Your task to perform on an android device: open wifi settings Image 0: 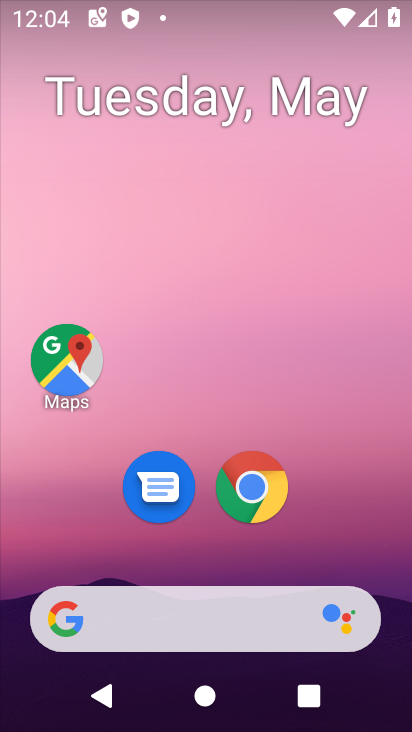
Step 0: drag from (387, 558) to (386, 149)
Your task to perform on an android device: open wifi settings Image 1: 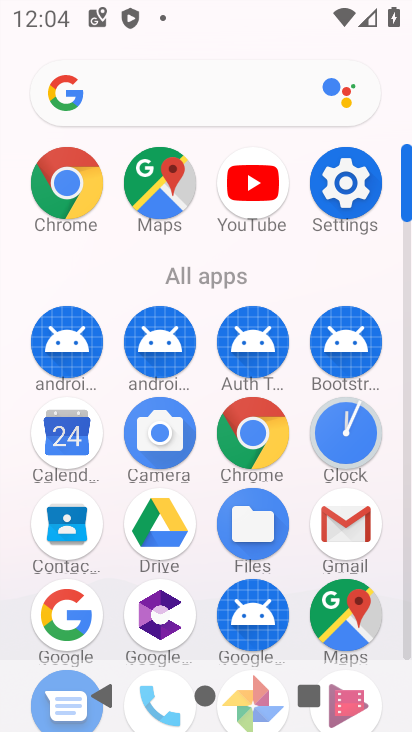
Step 1: click (355, 192)
Your task to perform on an android device: open wifi settings Image 2: 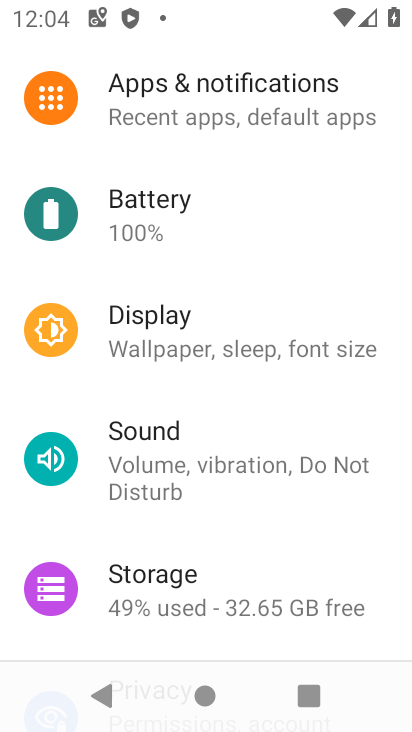
Step 2: drag from (382, 581) to (382, 497)
Your task to perform on an android device: open wifi settings Image 3: 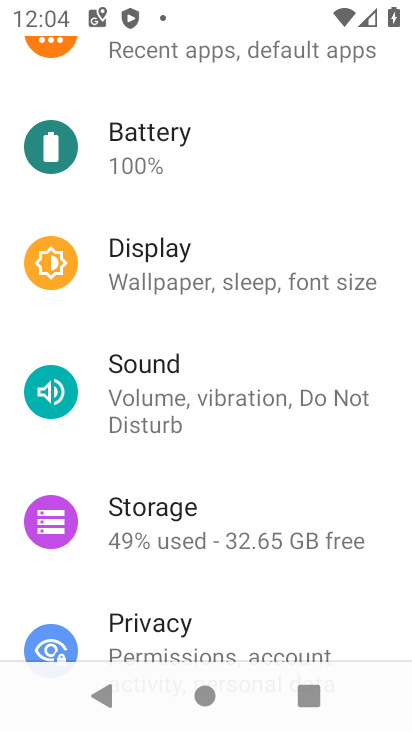
Step 3: drag from (371, 592) to (355, 465)
Your task to perform on an android device: open wifi settings Image 4: 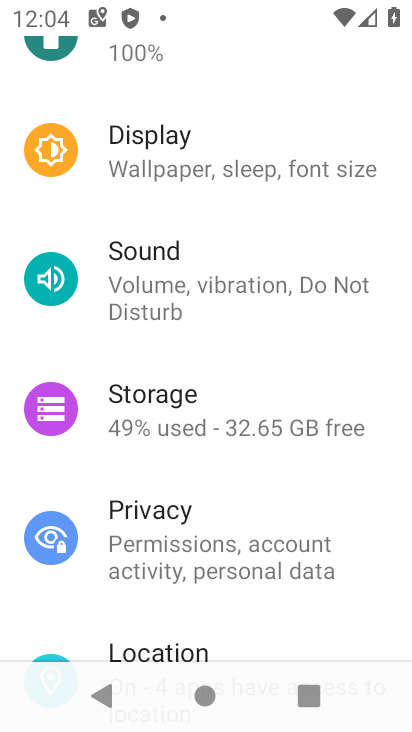
Step 4: drag from (368, 589) to (373, 503)
Your task to perform on an android device: open wifi settings Image 5: 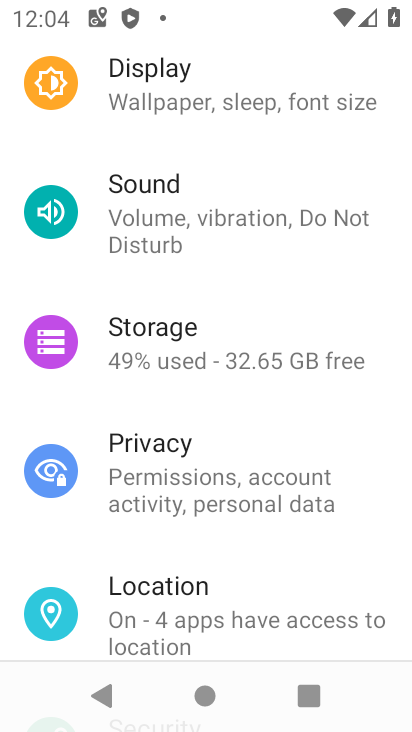
Step 5: drag from (373, 596) to (373, 463)
Your task to perform on an android device: open wifi settings Image 6: 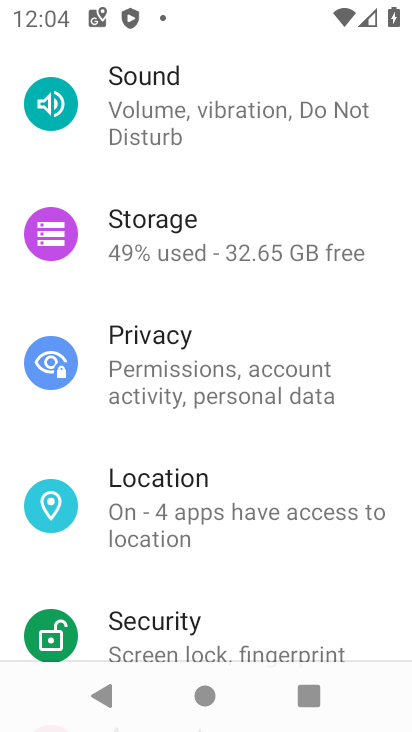
Step 6: drag from (372, 605) to (379, 449)
Your task to perform on an android device: open wifi settings Image 7: 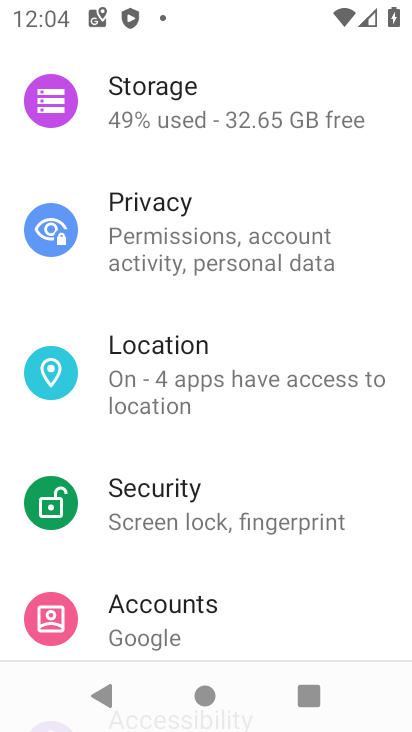
Step 7: drag from (367, 622) to (371, 502)
Your task to perform on an android device: open wifi settings Image 8: 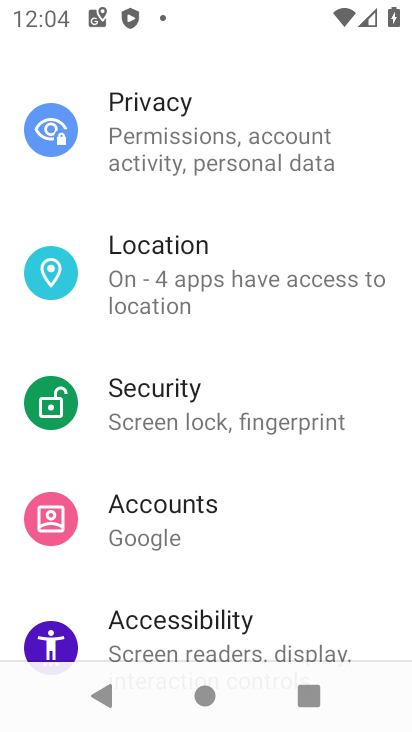
Step 8: drag from (364, 590) to (369, 465)
Your task to perform on an android device: open wifi settings Image 9: 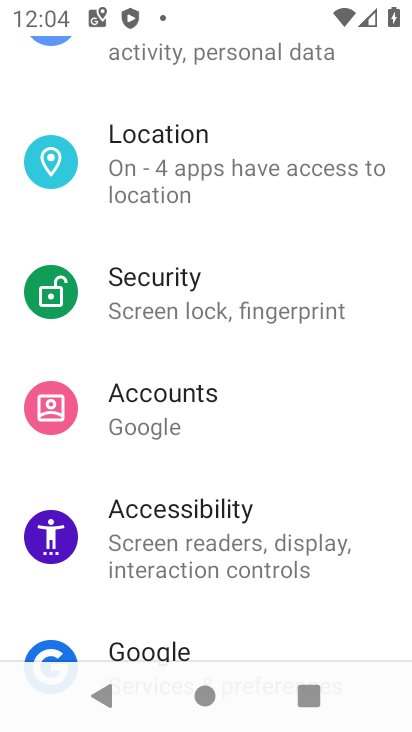
Step 9: drag from (368, 624) to (370, 469)
Your task to perform on an android device: open wifi settings Image 10: 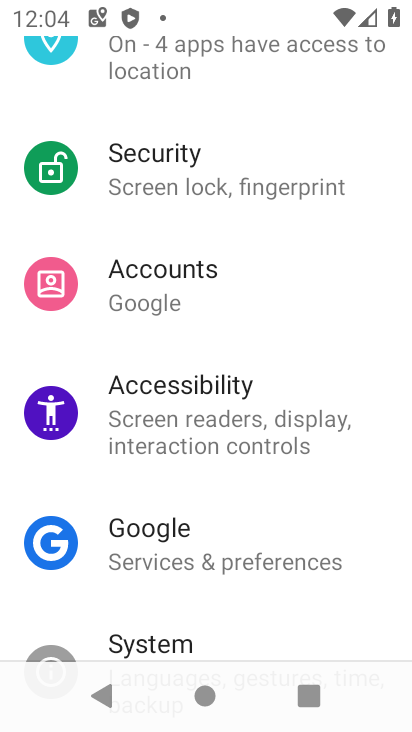
Step 10: drag from (371, 634) to (374, 458)
Your task to perform on an android device: open wifi settings Image 11: 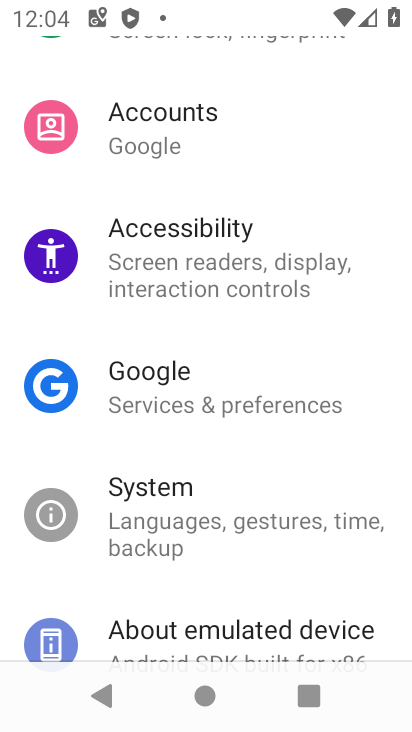
Step 11: drag from (374, 599) to (377, 435)
Your task to perform on an android device: open wifi settings Image 12: 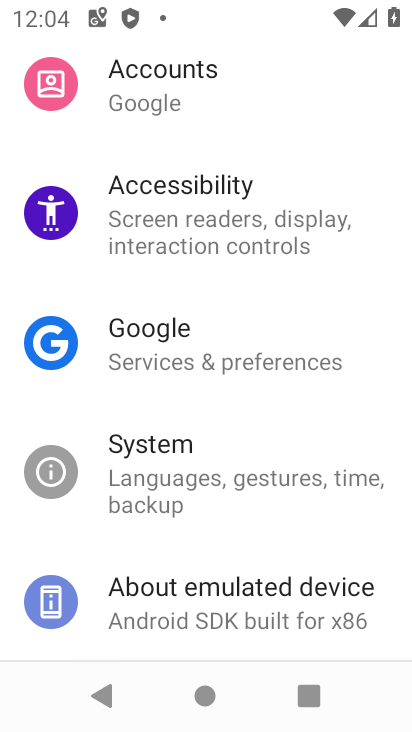
Step 12: drag from (376, 396) to (376, 513)
Your task to perform on an android device: open wifi settings Image 13: 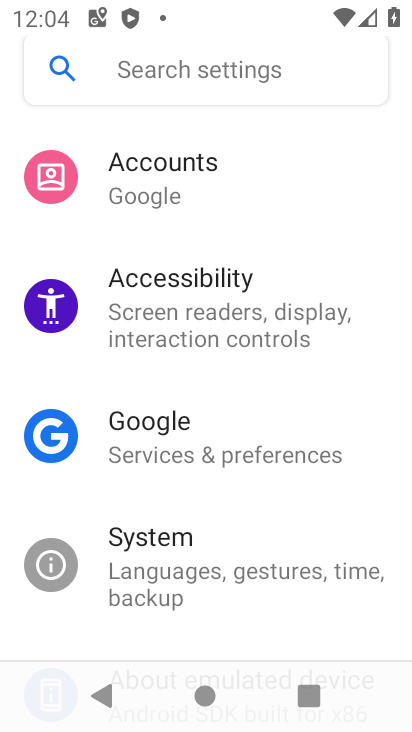
Step 13: drag from (387, 386) to (387, 517)
Your task to perform on an android device: open wifi settings Image 14: 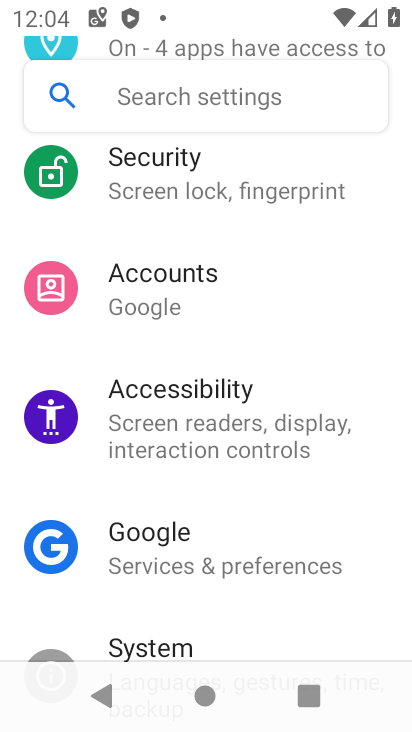
Step 14: drag from (382, 351) to (380, 479)
Your task to perform on an android device: open wifi settings Image 15: 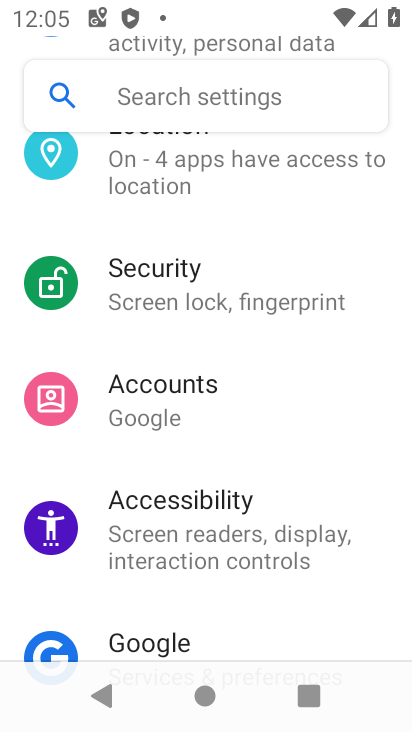
Step 15: drag from (374, 335) to (372, 452)
Your task to perform on an android device: open wifi settings Image 16: 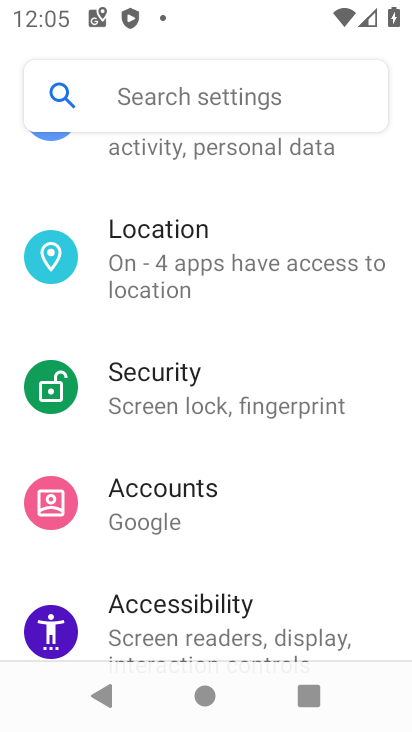
Step 16: drag from (374, 316) to (375, 435)
Your task to perform on an android device: open wifi settings Image 17: 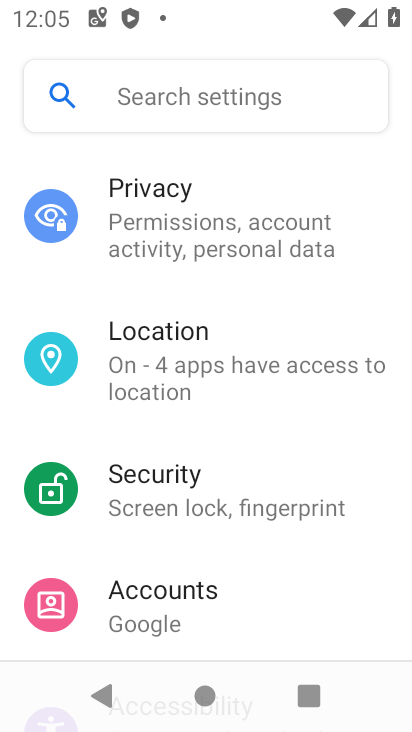
Step 17: drag from (384, 291) to (382, 432)
Your task to perform on an android device: open wifi settings Image 18: 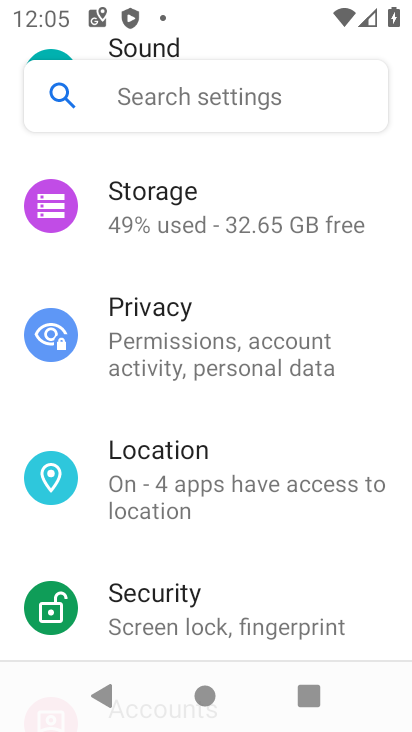
Step 18: drag from (373, 284) to (373, 402)
Your task to perform on an android device: open wifi settings Image 19: 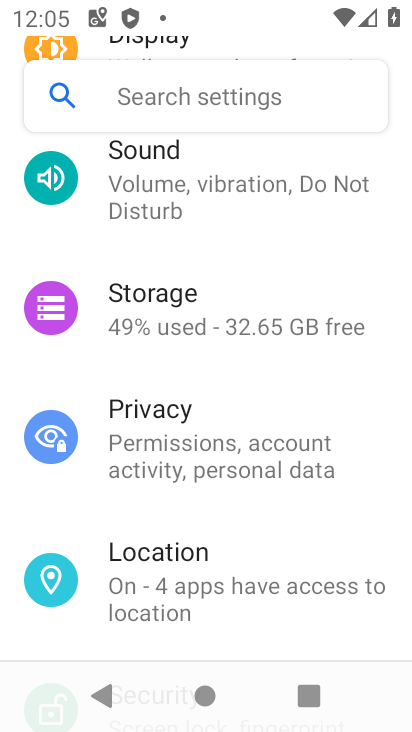
Step 19: drag from (368, 253) to (371, 395)
Your task to perform on an android device: open wifi settings Image 20: 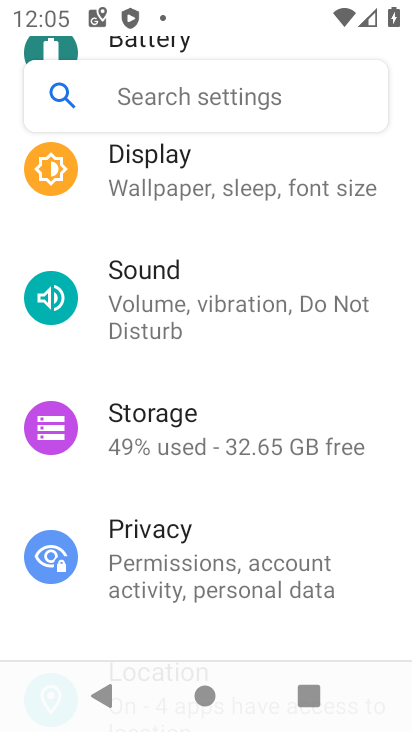
Step 20: drag from (376, 245) to (373, 377)
Your task to perform on an android device: open wifi settings Image 21: 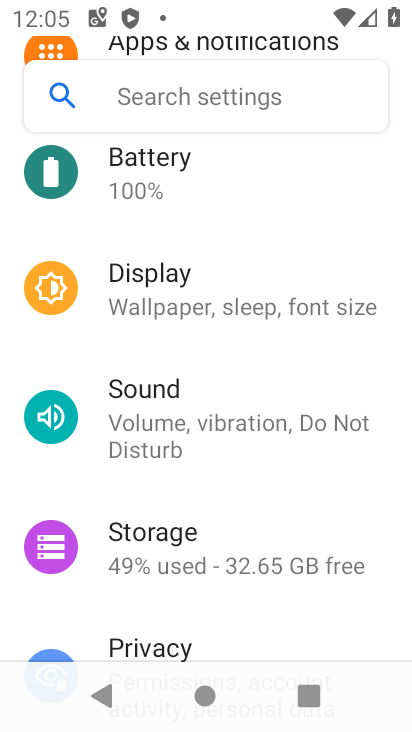
Step 21: drag from (368, 212) to (370, 361)
Your task to perform on an android device: open wifi settings Image 22: 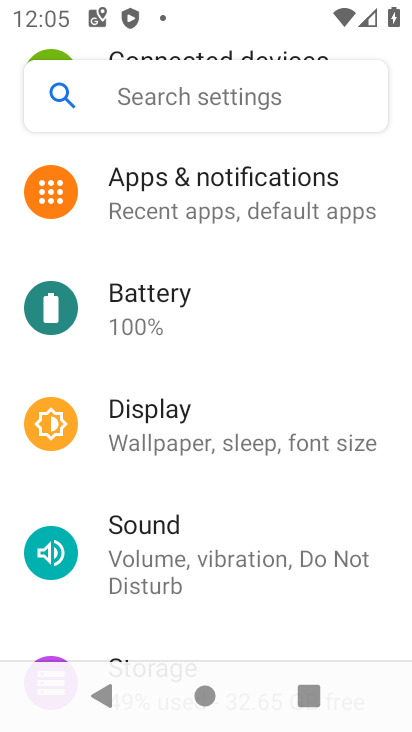
Step 22: drag from (378, 187) to (381, 350)
Your task to perform on an android device: open wifi settings Image 23: 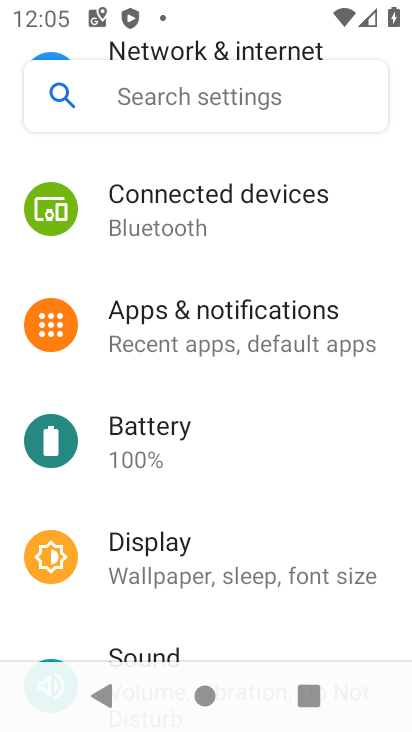
Step 23: drag from (381, 179) to (367, 346)
Your task to perform on an android device: open wifi settings Image 24: 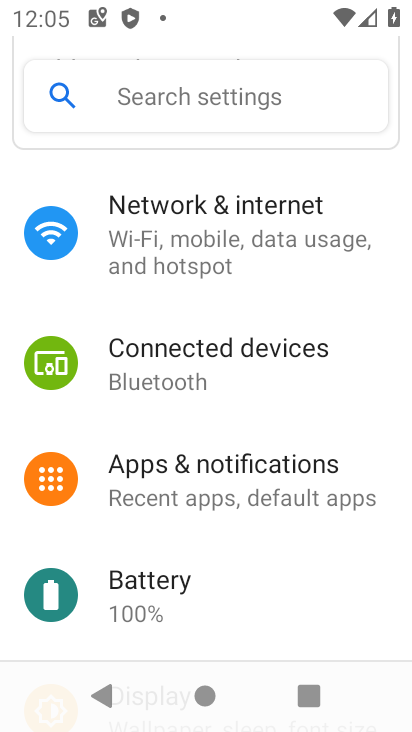
Step 24: click (337, 248)
Your task to perform on an android device: open wifi settings Image 25: 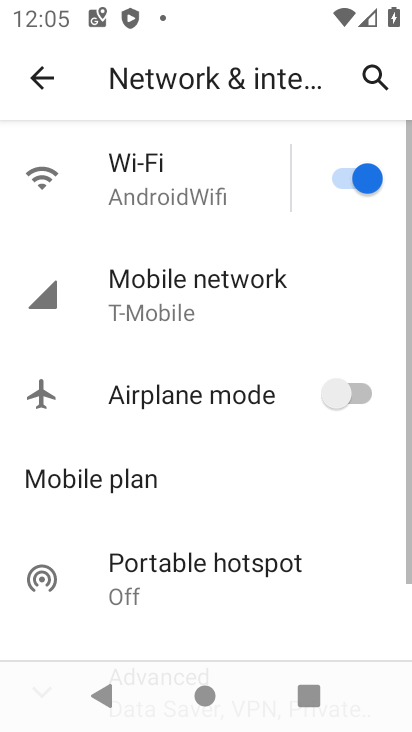
Step 25: click (147, 187)
Your task to perform on an android device: open wifi settings Image 26: 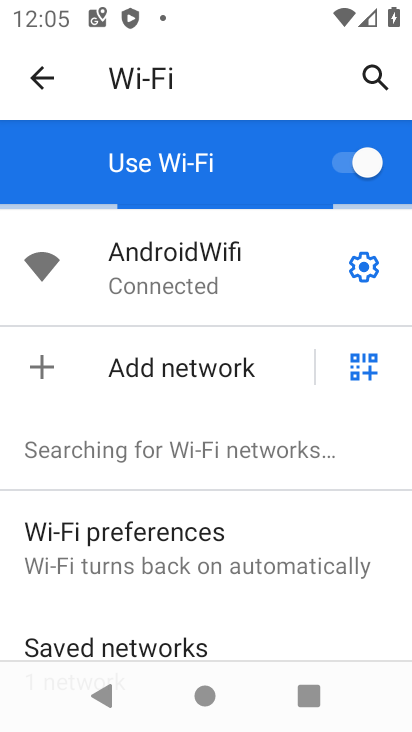
Step 26: task complete